Your task to perform on an android device: Open Android settings Image 0: 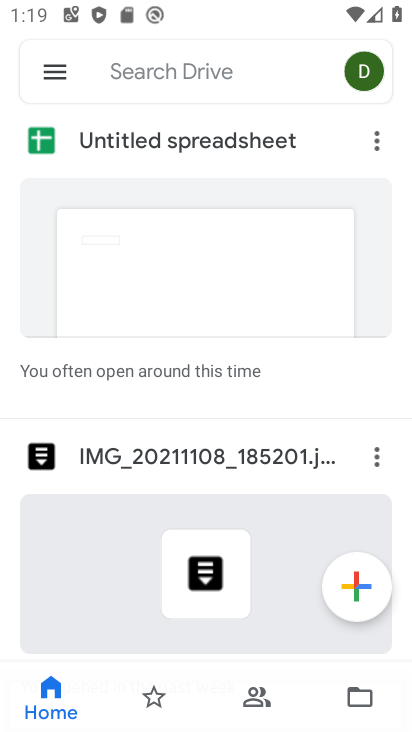
Step 0: press home button
Your task to perform on an android device: Open Android settings Image 1: 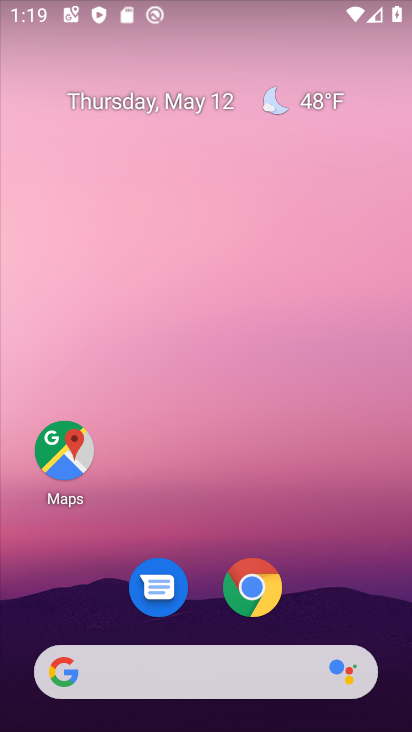
Step 1: drag from (174, 686) to (155, 86)
Your task to perform on an android device: Open Android settings Image 2: 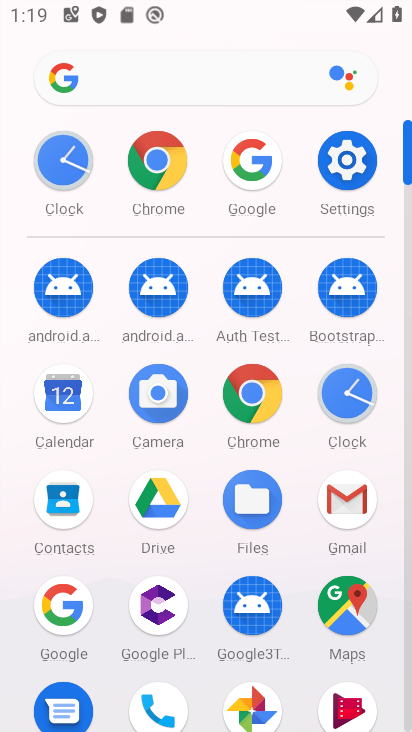
Step 2: click (330, 164)
Your task to perform on an android device: Open Android settings Image 3: 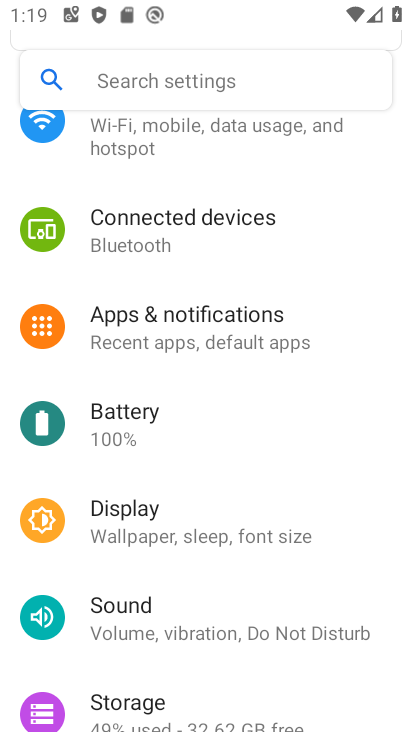
Step 3: drag from (187, 573) to (199, 193)
Your task to perform on an android device: Open Android settings Image 4: 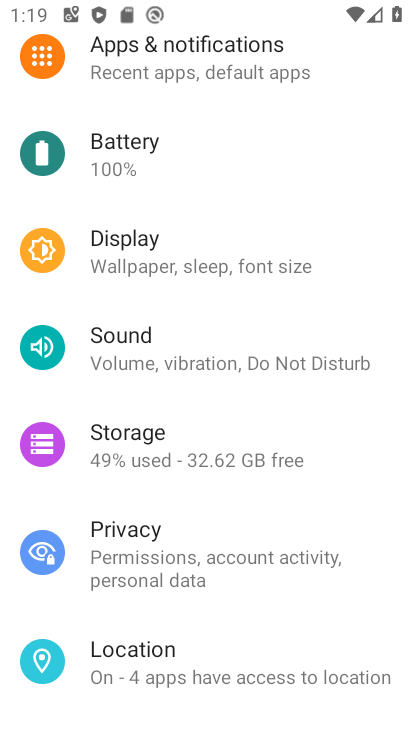
Step 4: drag from (193, 652) to (255, 197)
Your task to perform on an android device: Open Android settings Image 5: 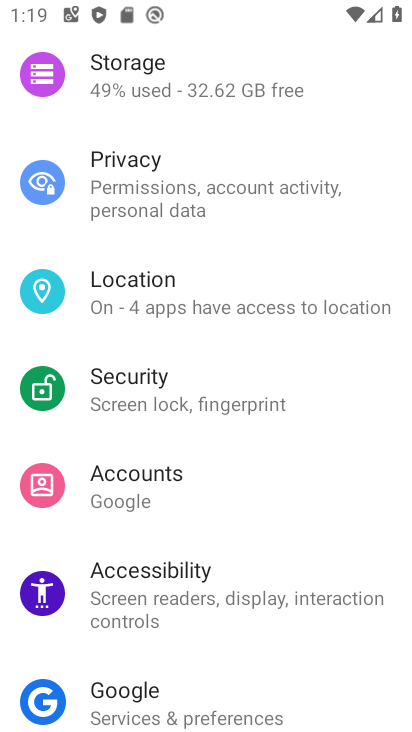
Step 5: drag from (178, 588) to (223, 136)
Your task to perform on an android device: Open Android settings Image 6: 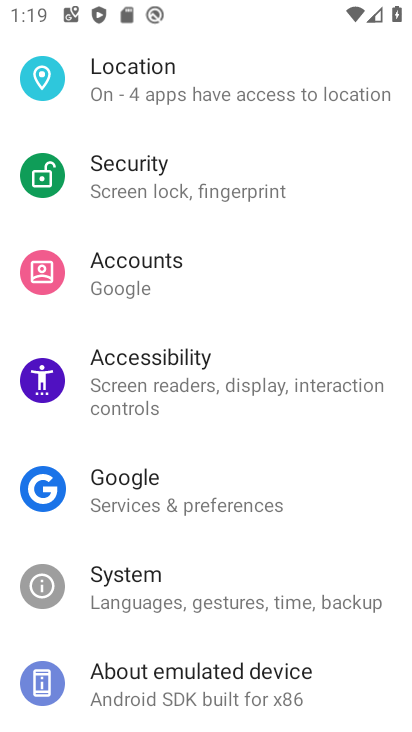
Step 6: click (144, 665)
Your task to perform on an android device: Open Android settings Image 7: 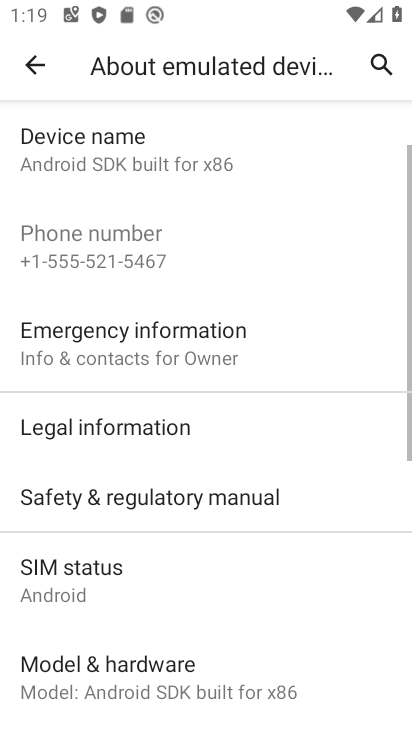
Step 7: drag from (164, 609) to (62, 286)
Your task to perform on an android device: Open Android settings Image 8: 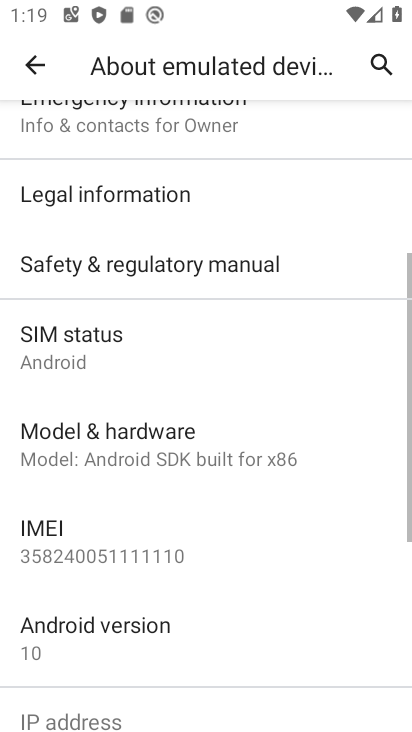
Step 8: click (92, 642)
Your task to perform on an android device: Open Android settings Image 9: 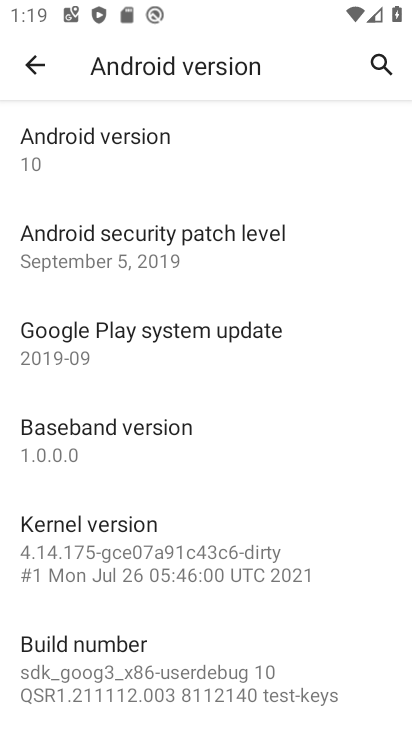
Step 9: task complete